Your task to perform on an android device: Open my contact list Image 0: 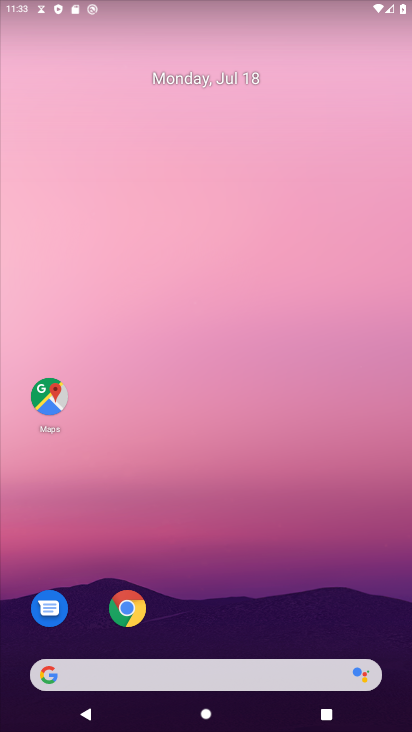
Step 0: drag from (294, 61) to (335, 647)
Your task to perform on an android device: Open my contact list Image 1: 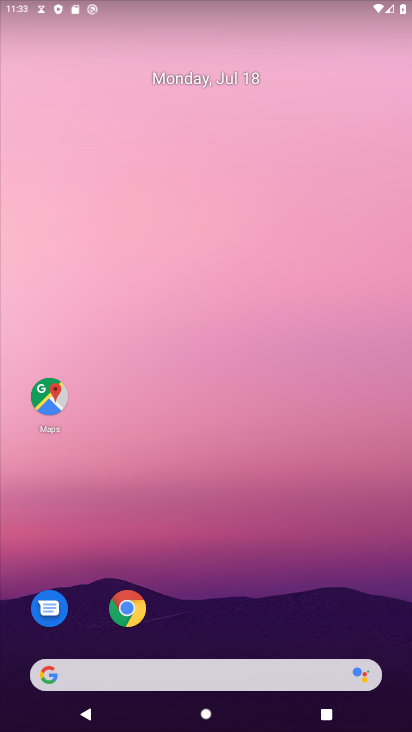
Step 1: task complete